Your task to perform on an android device: set the stopwatch Image 0: 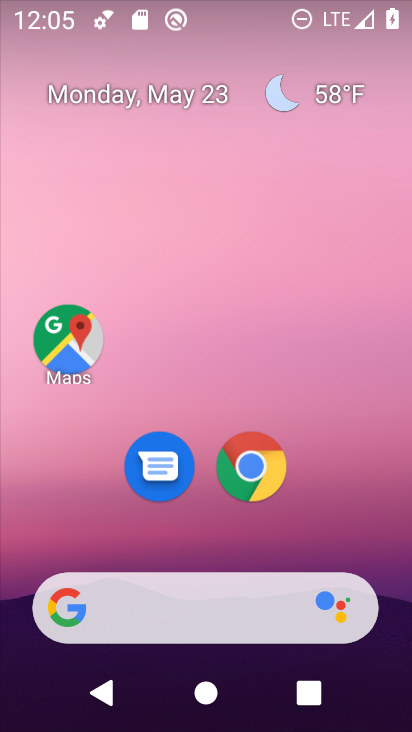
Step 0: drag from (203, 522) to (209, 72)
Your task to perform on an android device: set the stopwatch Image 1: 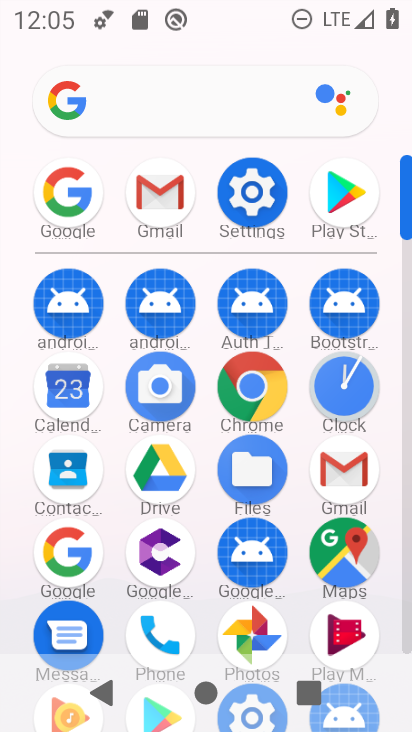
Step 1: click (340, 396)
Your task to perform on an android device: set the stopwatch Image 2: 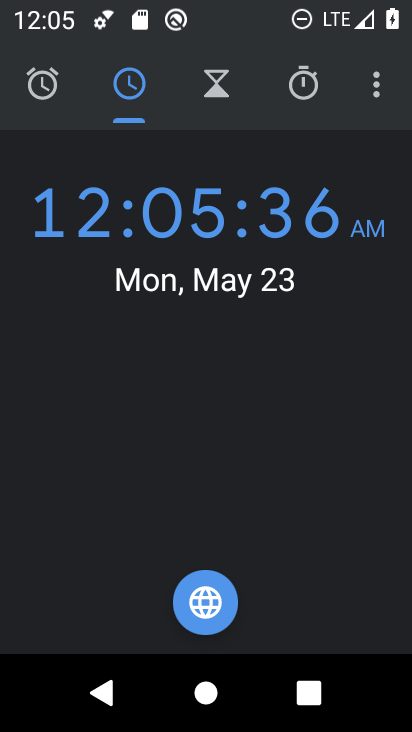
Step 2: click (305, 92)
Your task to perform on an android device: set the stopwatch Image 3: 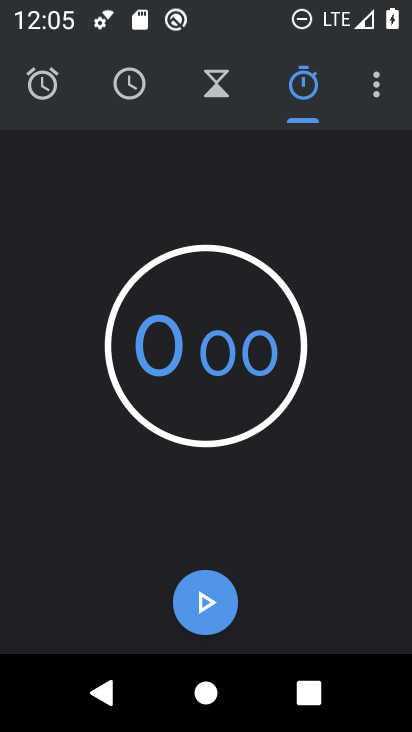
Step 3: click (226, 612)
Your task to perform on an android device: set the stopwatch Image 4: 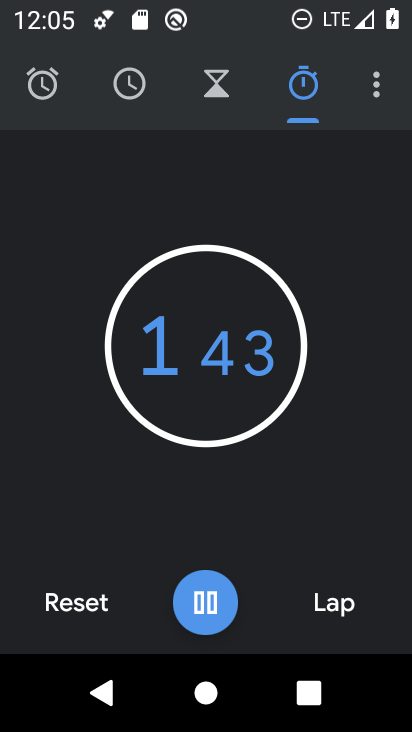
Step 4: click (221, 609)
Your task to perform on an android device: set the stopwatch Image 5: 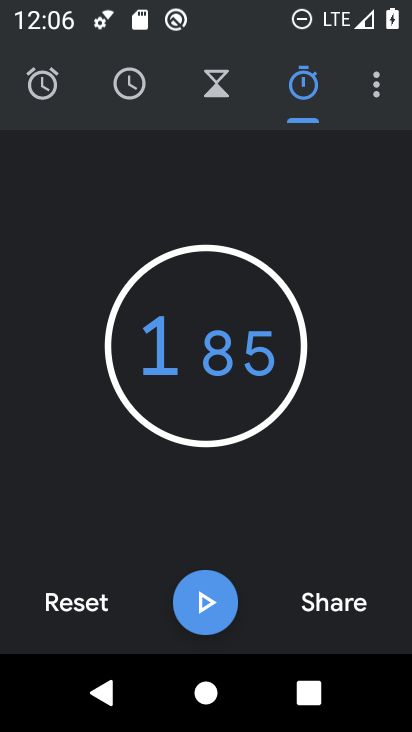
Step 5: task complete